Your task to perform on an android device: add a contact Image 0: 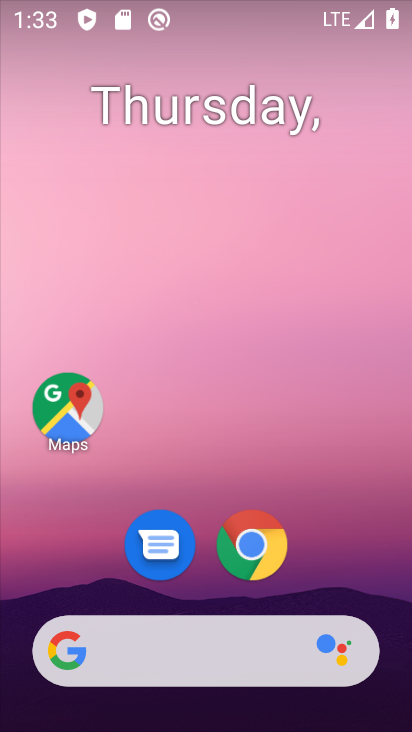
Step 0: drag from (193, 586) to (193, 166)
Your task to perform on an android device: add a contact Image 1: 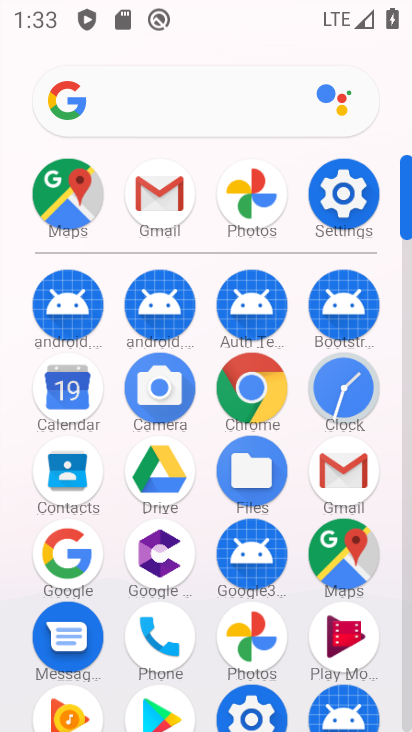
Step 1: click (62, 483)
Your task to perform on an android device: add a contact Image 2: 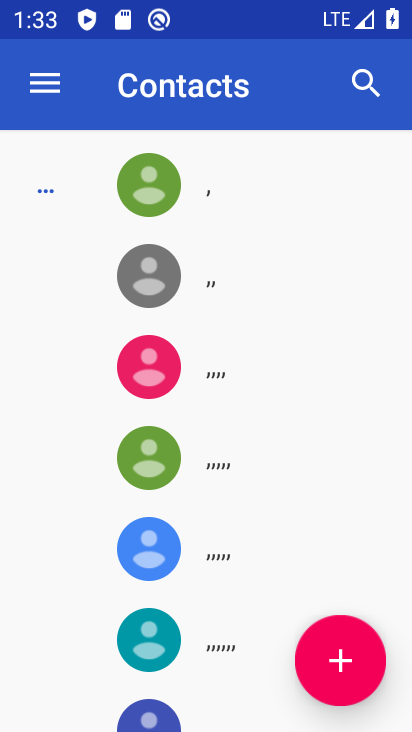
Step 2: click (336, 670)
Your task to perform on an android device: add a contact Image 3: 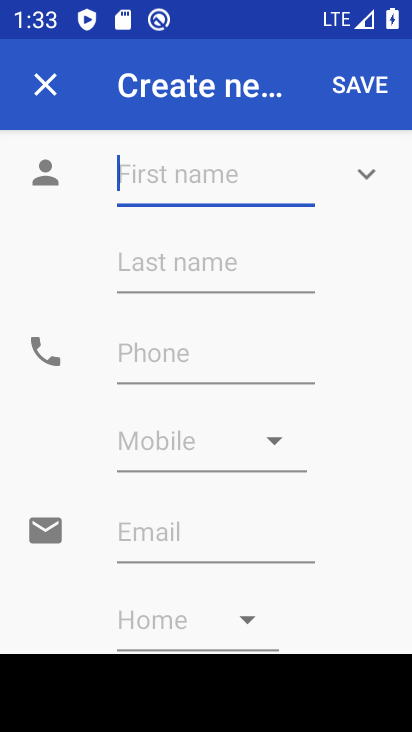
Step 3: type "fchg"
Your task to perform on an android device: add a contact Image 4: 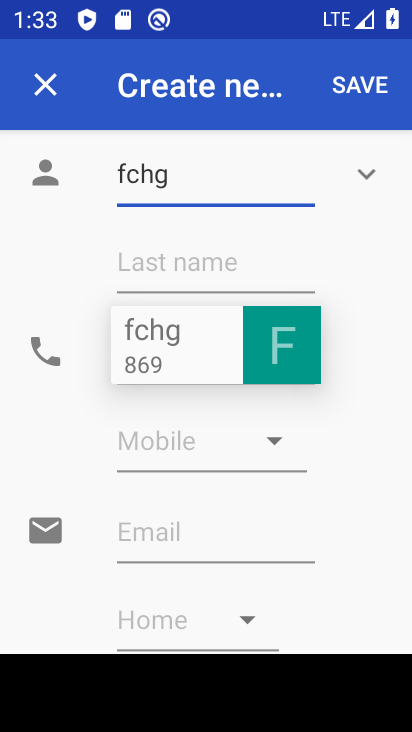
Step 4: click (221, 361)
Your task to perform on an android device: add a contact Image 5: 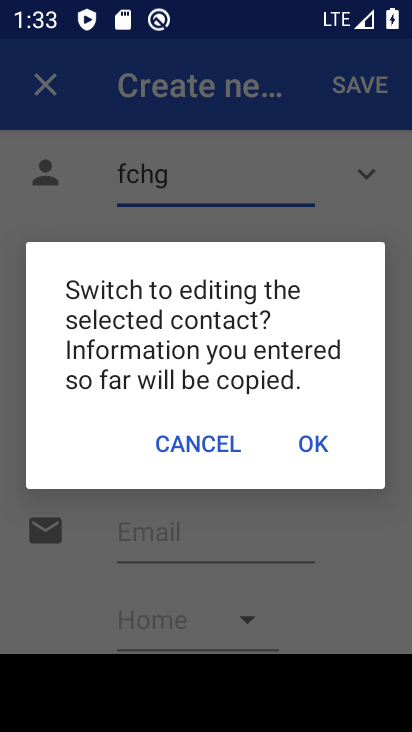
Step 5: click (180, 448)
Your task to perform on an android device: add a contact Image 6: 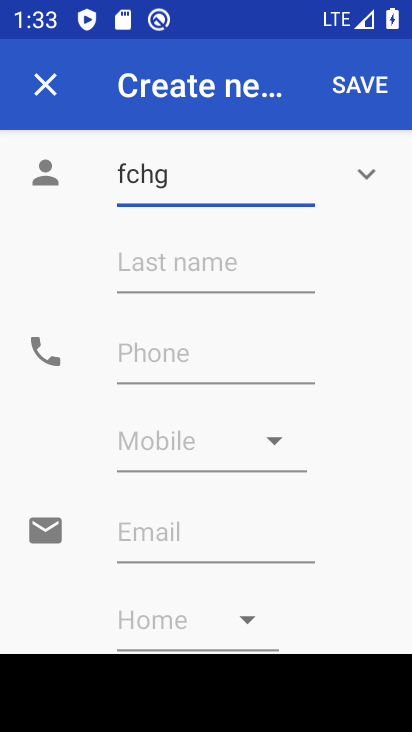
Step 6: type "hgk"
Your task to perform on an android device: add a contact Image 7: 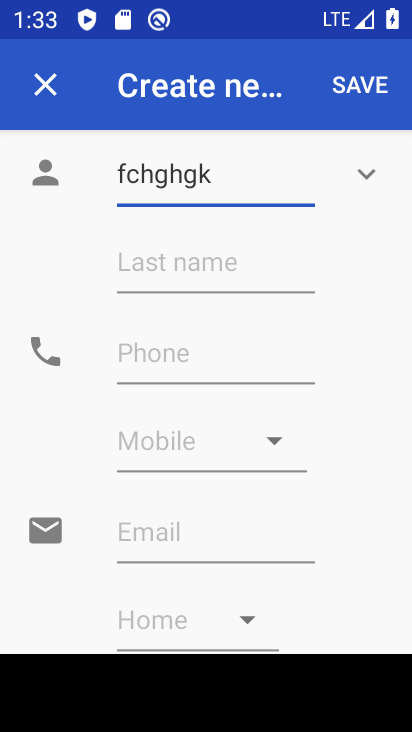
Step 7: click (255, 358)
Your task to perform on an android device: add a contact Image 8: 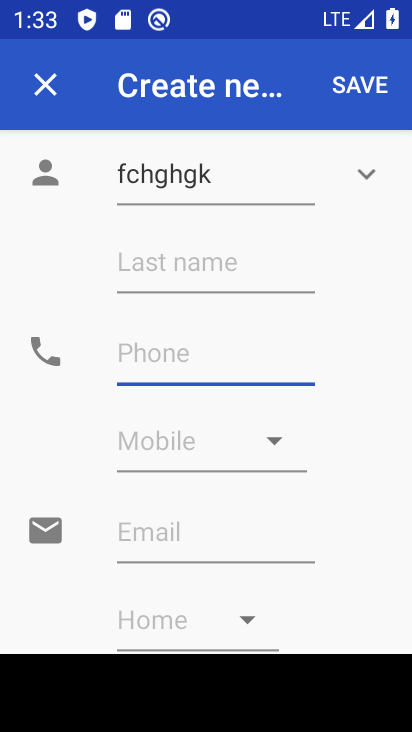
Step 8: type "788"
Your task to perform on an android device: add a contact Image 9: 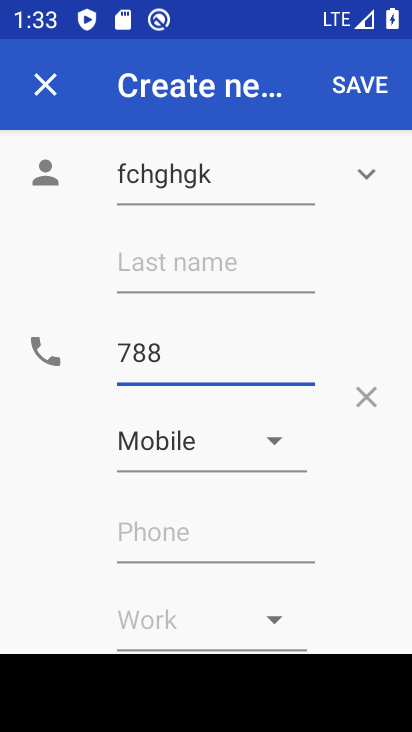
Step 9: click (376, 79)
Your task to perform on an android device: add a contact Image 10: 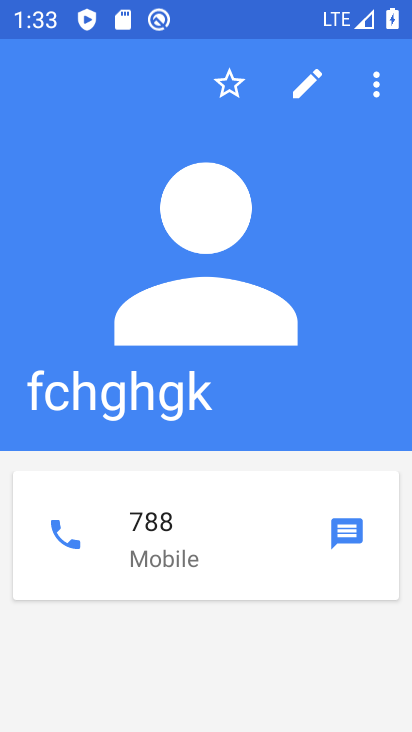
Step 10: task complete